Your task to perform on an android device: Open internet settings Image 0: 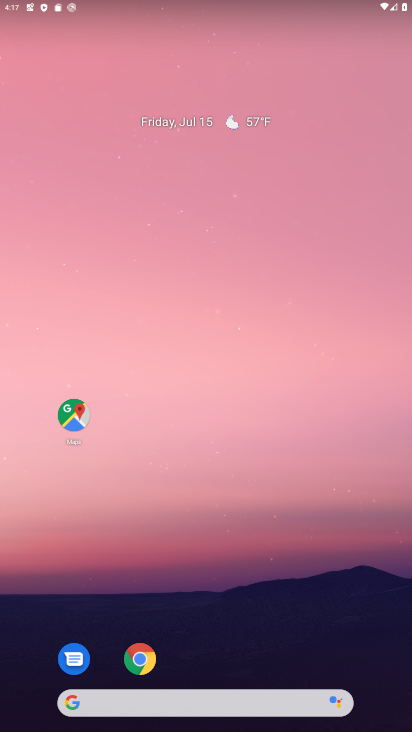
Step 0: drag from (329, 638) to (186, 39)
Your task to perform on an android device: Open internet settings Image 1: 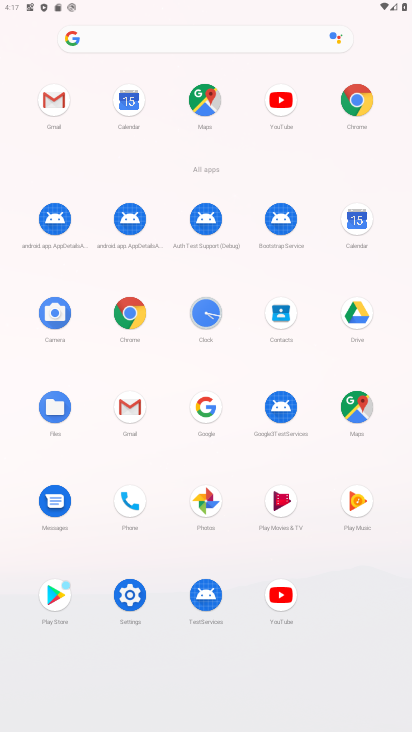
Step 1: click (132, 606)
Your task to perform on an android device: Open internet settings Image 2: 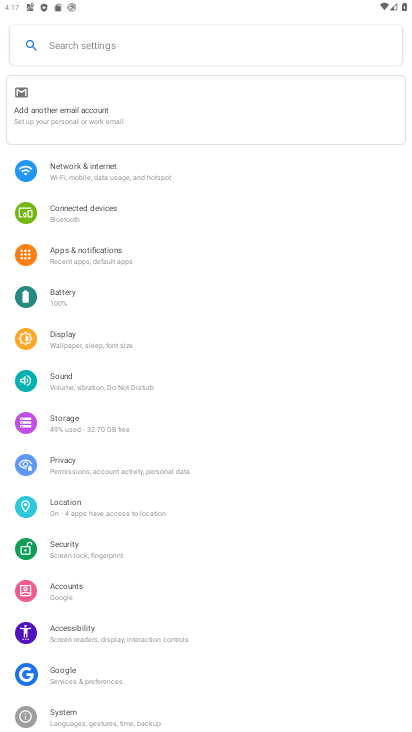
Step 2: click (146, 175)
Your task to perform on an android device: Open internet settings Image 3: 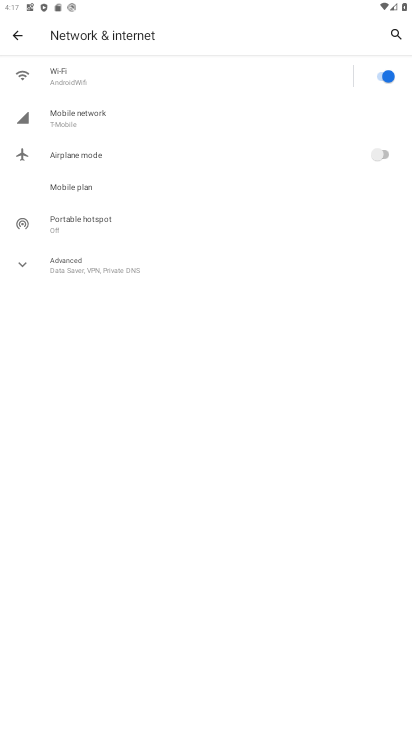
Step 3: task complete